Your task to perform on an android device: manage bookmarks in the chrome app Image 0: 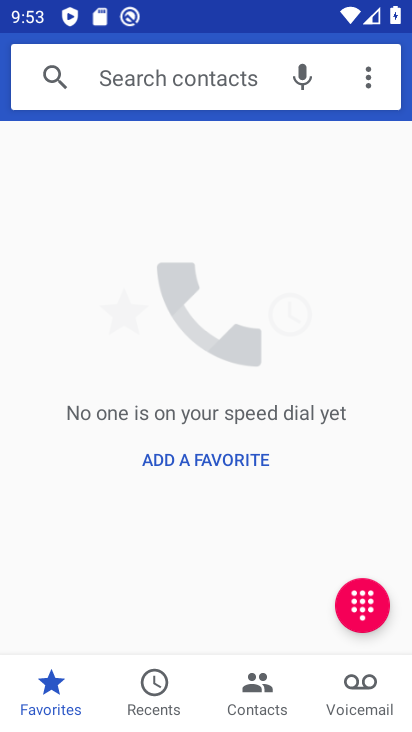
Step 0: press home button
Your task to perform on an android device: manage bookmarks in the chrome app Image 1: 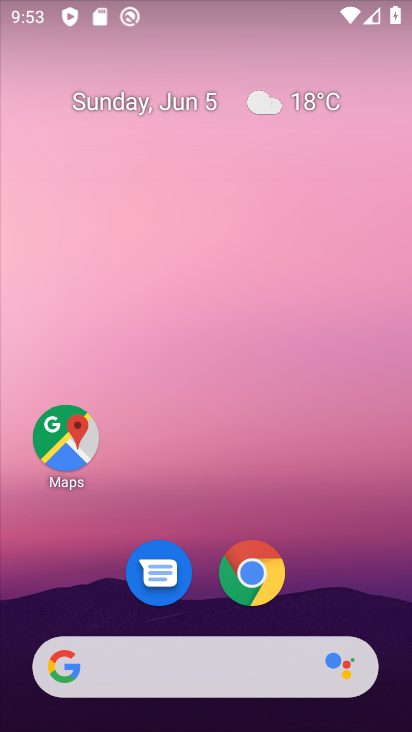
Step 1: drag from (208, 649) to (192, 323)
Your task to perform on an android device: manage bookmarks in the chrome app Image 2: 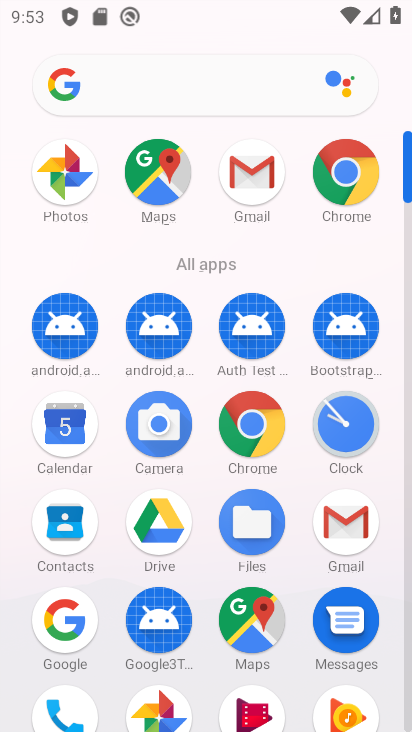
Step 2: drag from (200, 618) to (198, 313)
Your task to perform on an android device: manage bookmarks in the chrome app Image 3: 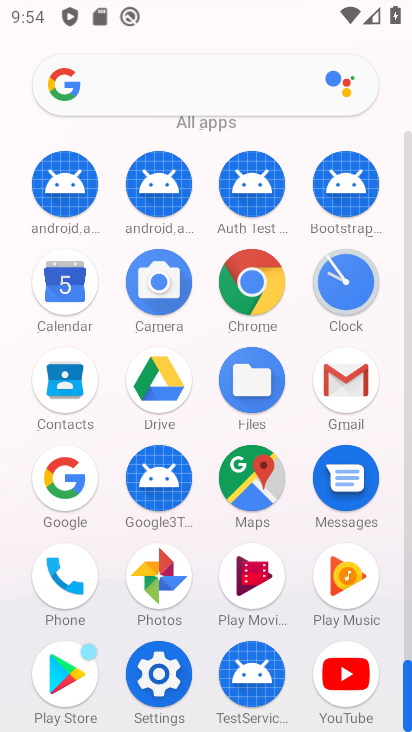
Step 3: click (257, 280)
Your task to perform on an android device: manage bookmarks in the chrome app Image 4: 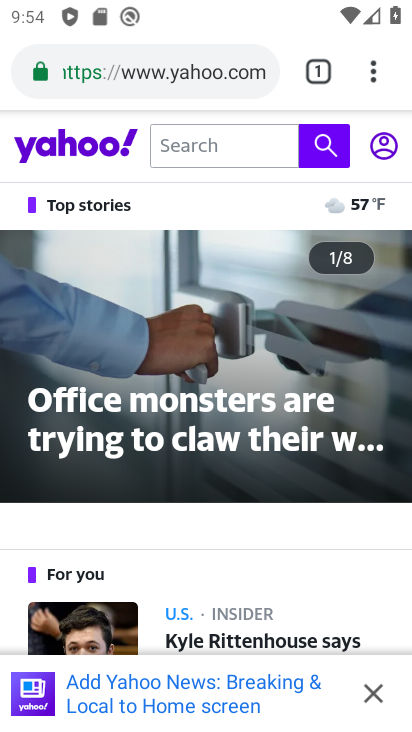
Step 4: click (374, 65)
Your task to perform on an android device: manage bookmarks in the chrome app Image 5: 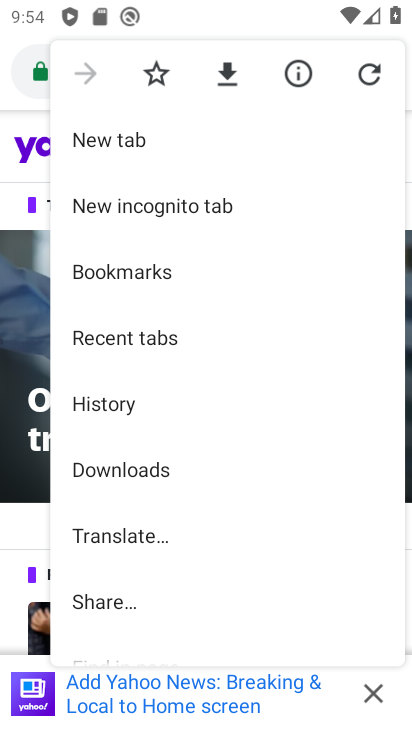
Step 5: drag from (219, 596) to (194, 297)
Your task to perform on an android device: manage bookmarks in the chrome app Image 6: 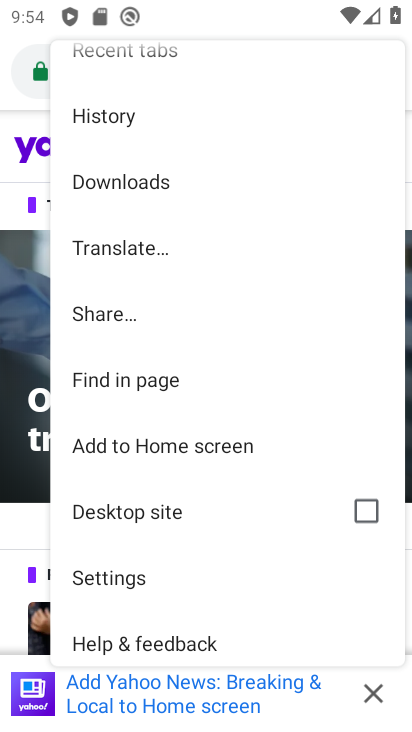
Step 6: drag from (168, 158) to (203, 555)
Your task to perform on an android device: manage bookmarks in the chrome app Image 7: 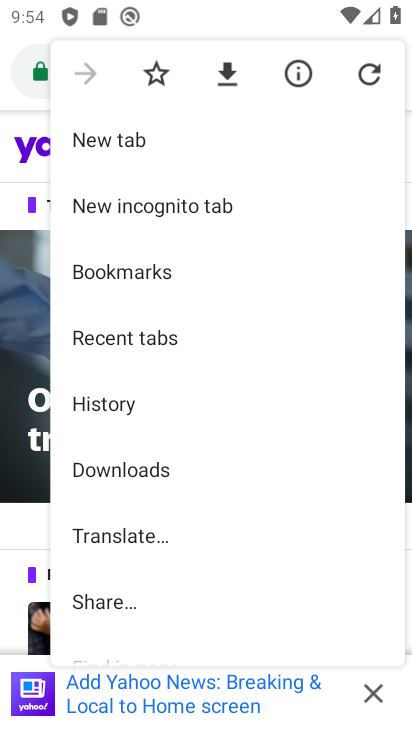
Step 7: click (162, 275)
Your task to perform on an android device: manage bookmarks in the chrome app Image 8: 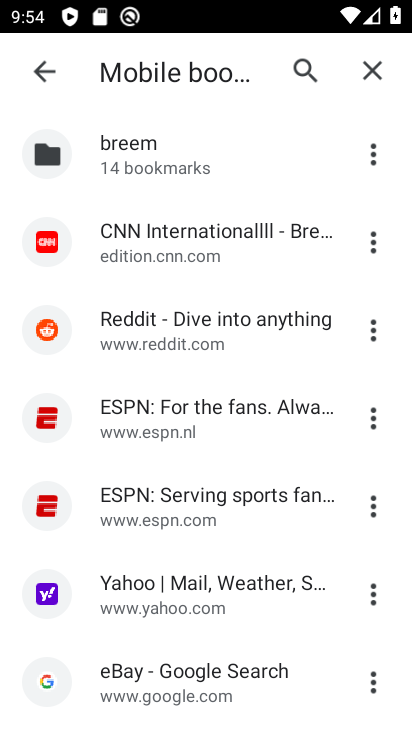
Step 8: click (153, 402)
Your task to perform on an android device: manage bookmarks in the chrome app Image 9: 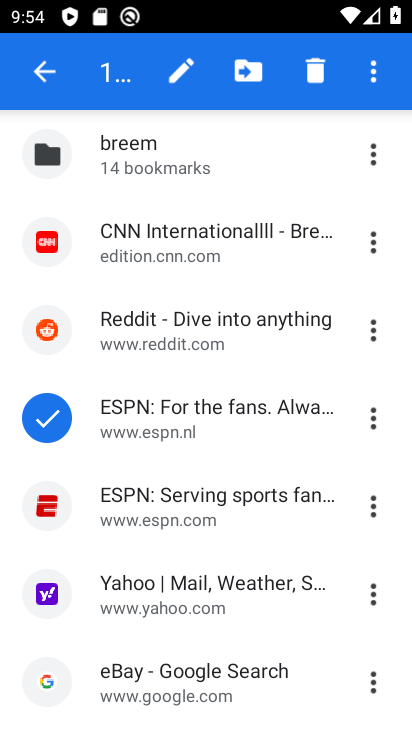
Step 9: click (313, 65)
Your task to perform on an android device: manage bookmarks in the chrome app Image 10: 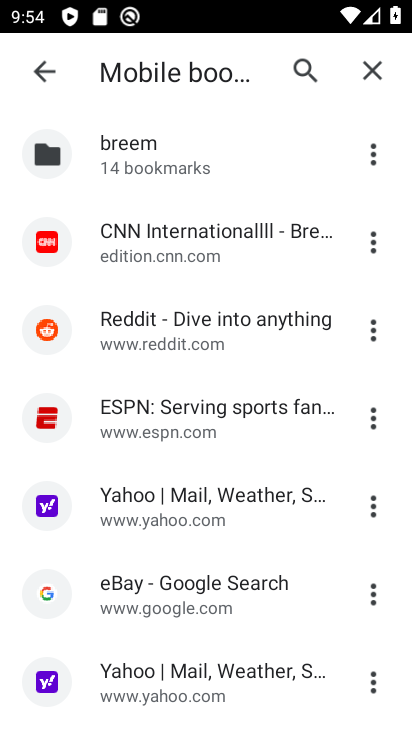
Step 10: task complete